Your task to perform on an android device: turn on the 24-hour format for clock Image 0: 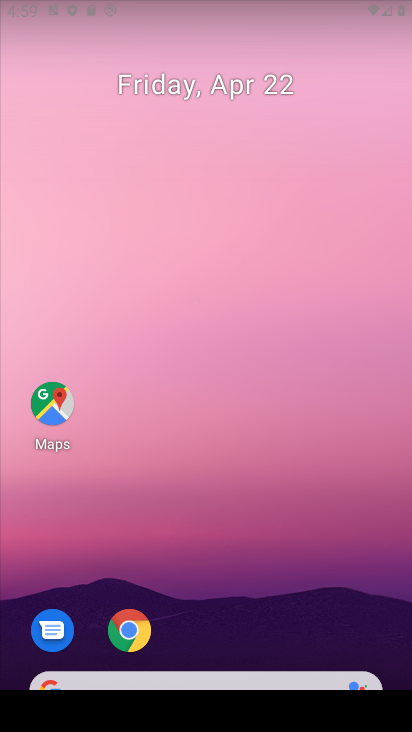
Step 0: drag from (297, 620) to (104, 41)
Your task to perform on an android device: turn on the 24-hour format for clock Image 1: 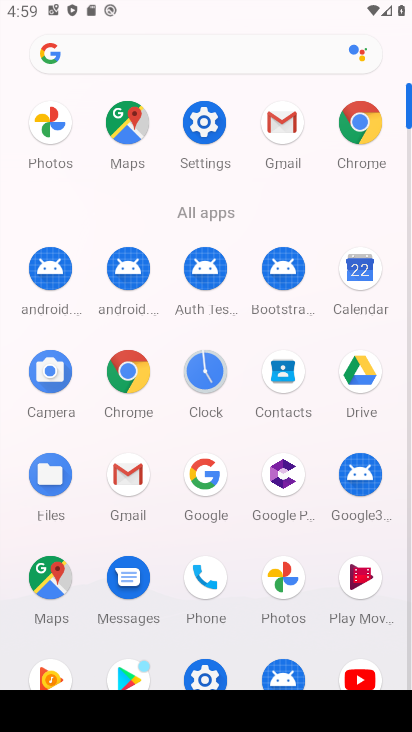
Step 1: drag from (1, 499) to (0, 245)
Your task to perform on an android device: turn on the 24-hour format for clock Image 2: 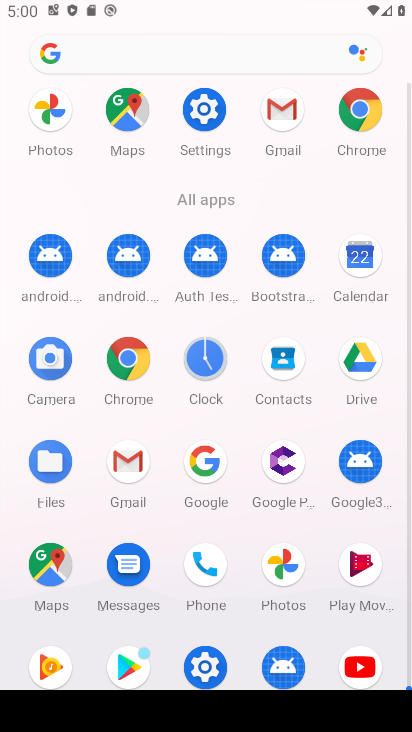
Step 2: drag from (9, 459) to (9, 293)
Your task to perform on an android device: turn on the 24-hour format for clock Image 3: 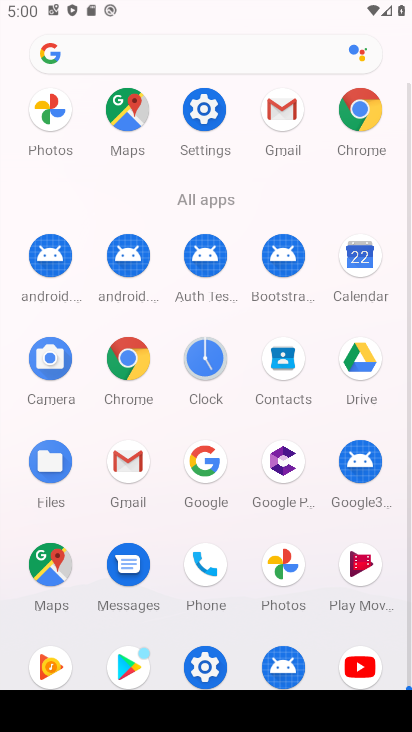
Step 3: click (205, 357)
Your task to perform on an android device: turn on the 24-hour format for clock Image 4: 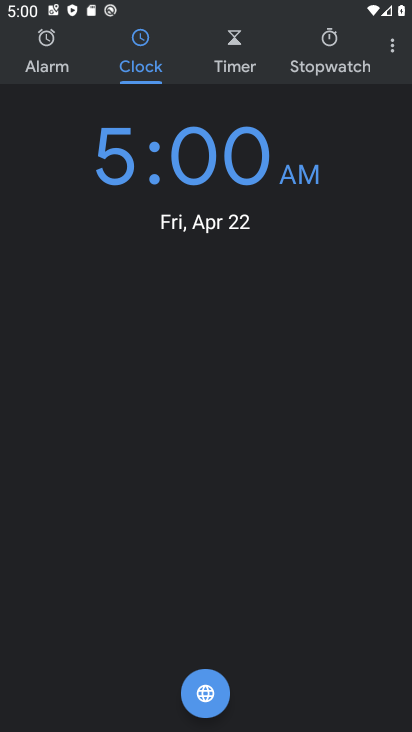
Step 4: click (387, 49)
Your task to perform on an android device: turn on the 24-hour format for clock Image 5: 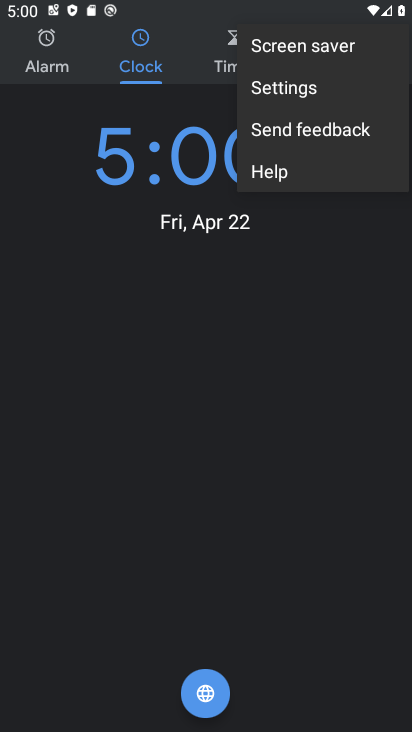
Step 5: click (277, 84)
Your task to perform on an android device: turn on the 24-hour format for clock Image 6: 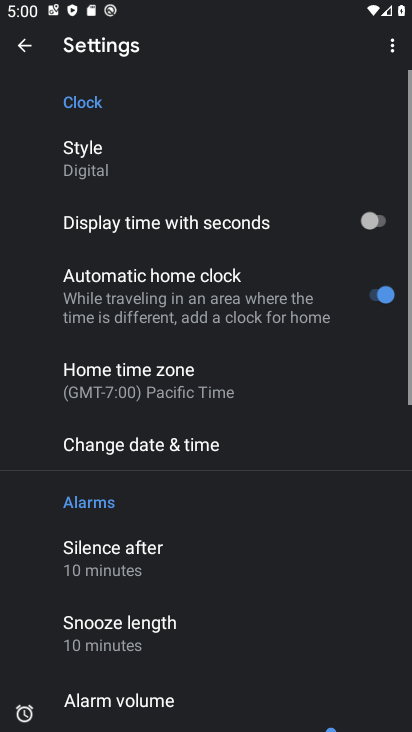
Step 6: click (159, 453)
Your task to perform on an android device: turn on the 24-hour format for clock Image 7: 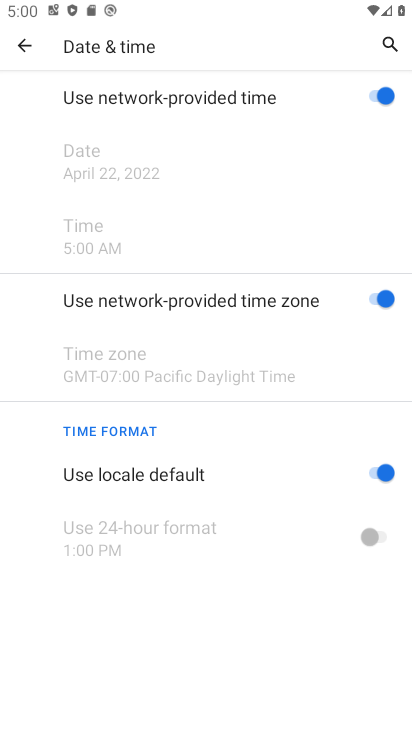
Step 7: click (371, 478)
Your task to perform on an android device: turn on the 24-hour format for clock Image 8: 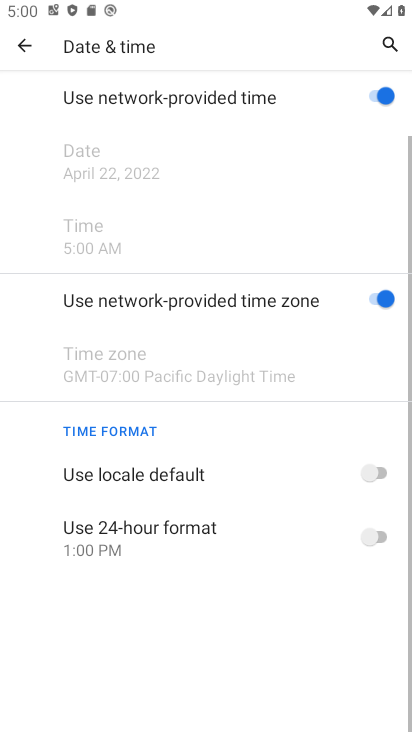
Step 8: click (371, 524)
Your task to perform on an android device: turn on the 24-hour format for clock Image 9: 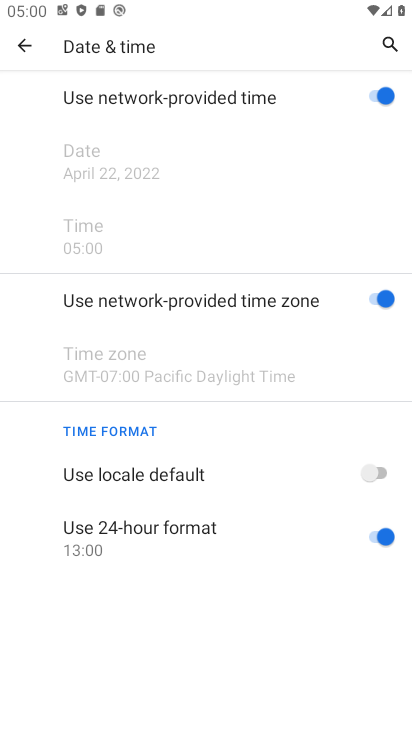
Step 9: task complete